Your task to perform on an android device: Turn on the flashlight Image 0: 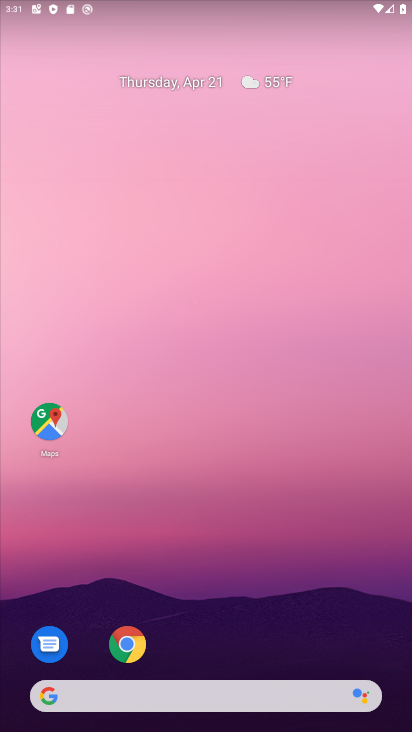
Step 0: drag from (205, 669) to (194, 83)
Your task to perform on an android device: Turn on the flashlight Image 1: 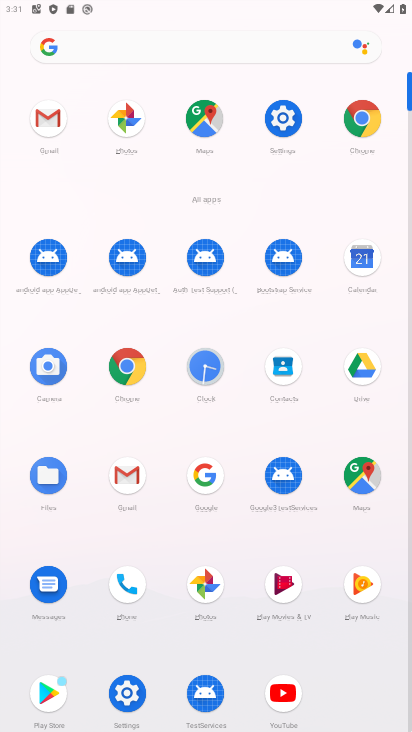
Step 1: click (285, 140)
Your task to perform on an android device: Turn on the flashlight Image 2: 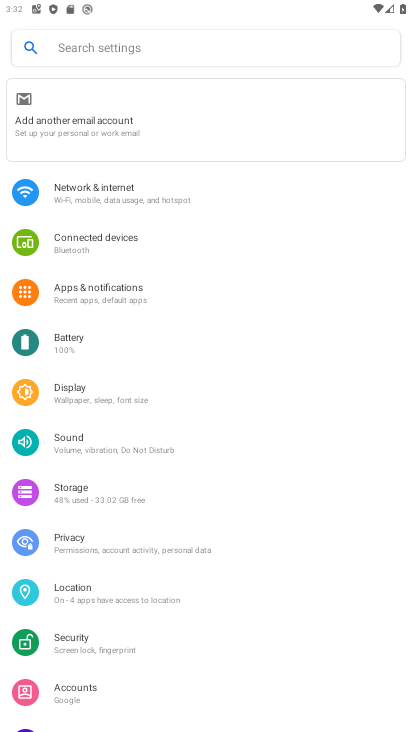
Step 2: task complete